Your task to perform on an android device: turn on improve location accuracy Image 0: 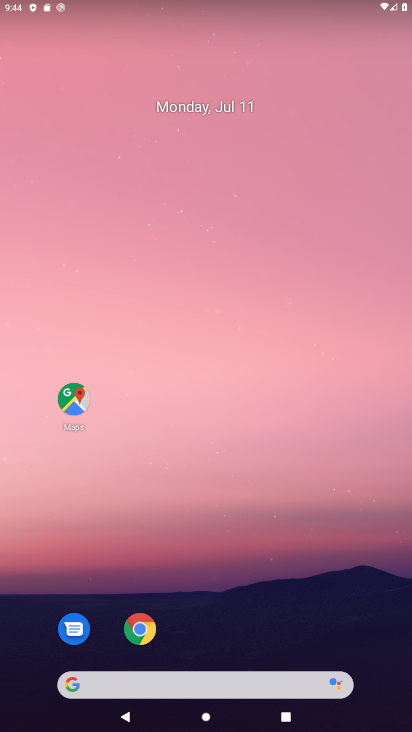
Step 0: drag from (288, 613) to (267, 149)
Your task to perform on an android device: turn on improve location accuracy Image 1: 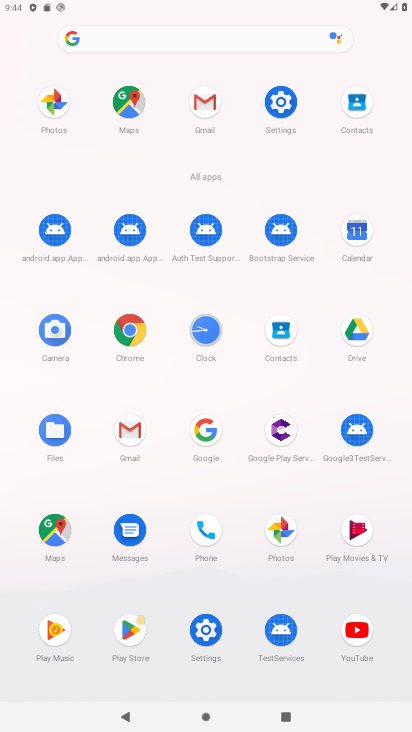
Step 1: click (212, 619)
Your task to perform on an android device: turn on improve location accuracy Image 2: 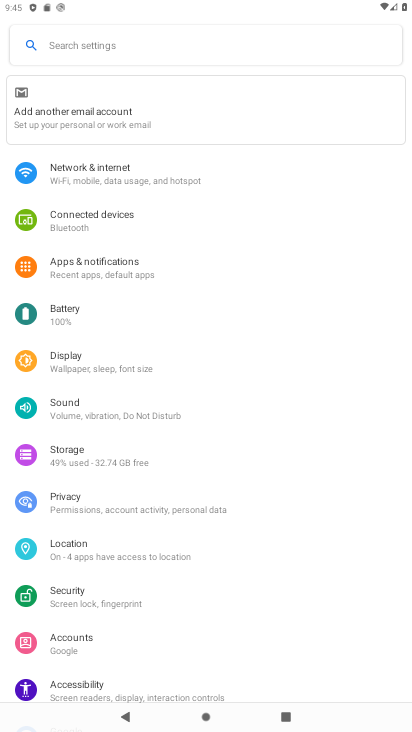
Step 2: click (92, 540)
Your task to perform on an android device: turn on improve location accuracy Image 3: 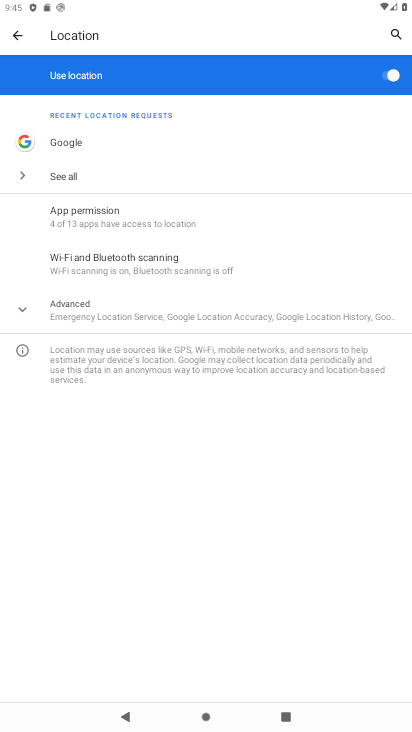
Step 3: click (103, 316)
Your task to perform on an android device: turn on improve location accuracy Image 4: 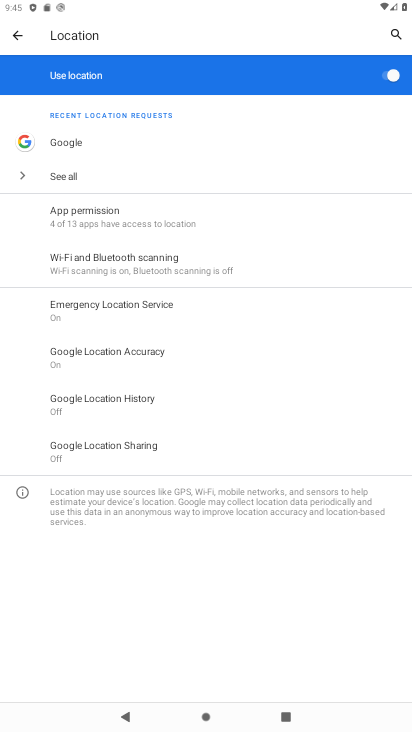
Step 4: click (144, 353)
Your task to perform on an android device: turn on improve location accuracy Image 5: 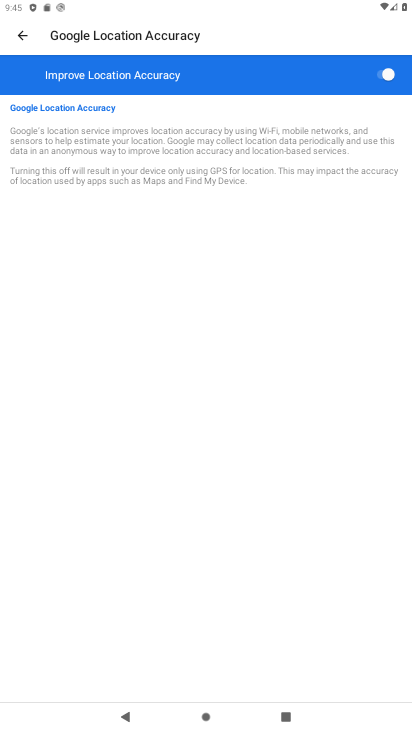
Step 5: task complete